Your task to perform on an android device: Open ESPN.com Image 0: 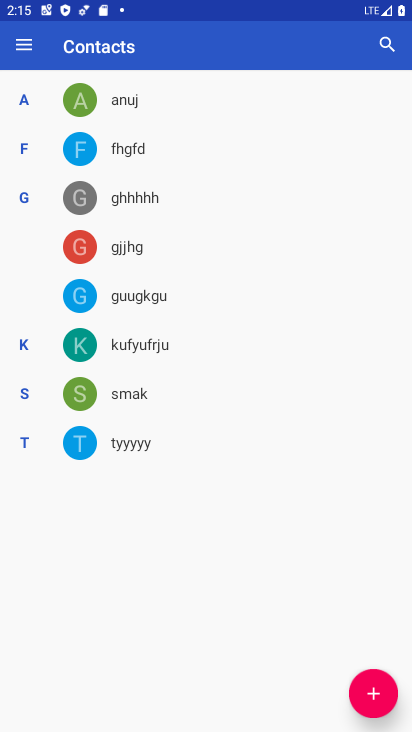
Step 0: press home button
Your task to perform on an android device: Open ESPN.com Image 1: 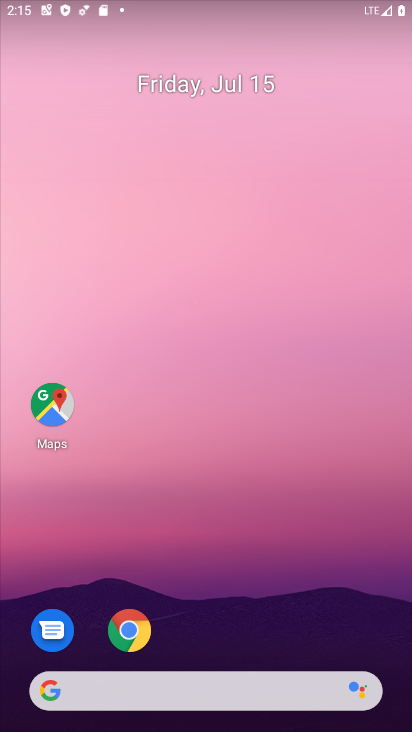
Step 1: click (54, 693)
Your task to perform on an android device: Open ESPN.com Image 2: 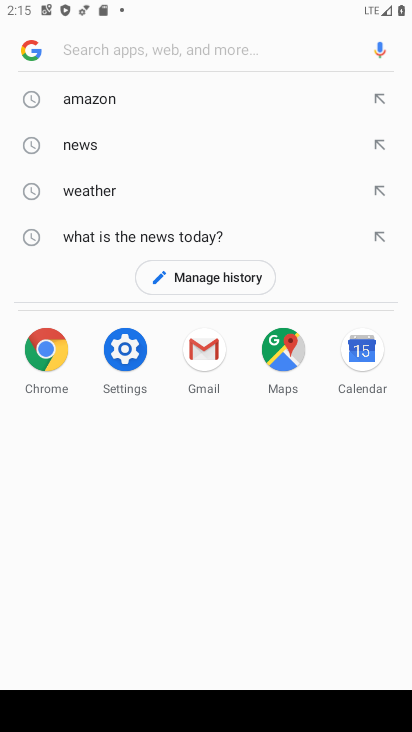
Step 2: click (113, 51)
Your task to perform on an android device: Open ESPN.com Image 3: 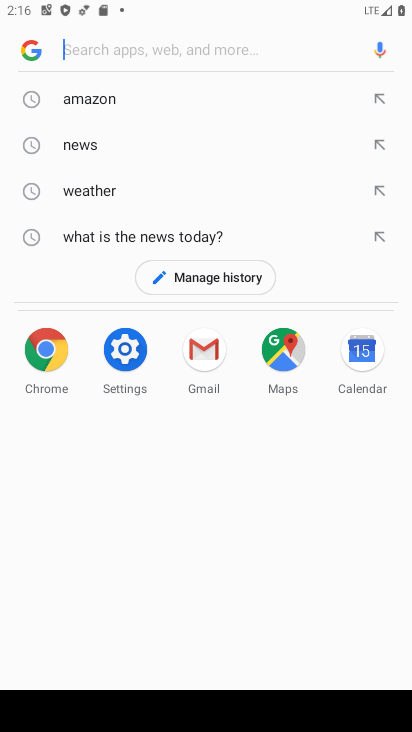
Step 3: type "ESPN.com"
Your task to perform on an android device: Open ESPN.com Image 4: 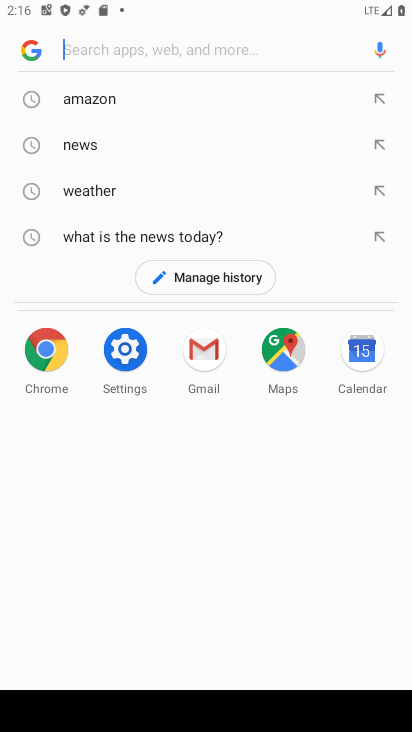
Step 4: click (94, 52)
Your task to perform on an android device: Open ESPN.com Image 5: 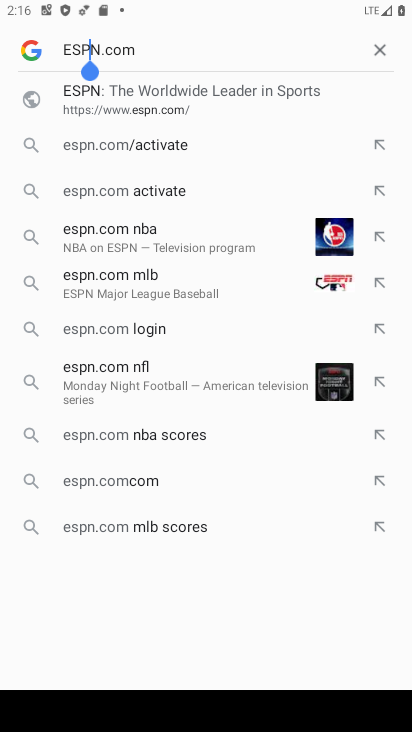
Step 5: press enter
Your task to perform on an android device: Open ESPN.com Image 6: 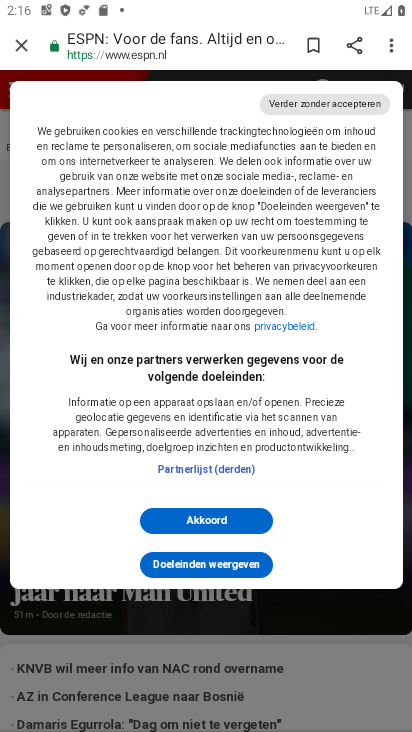
Step 6: click (213, 508)
Your task to perform on an android device: Open ESPN.com Image 7: 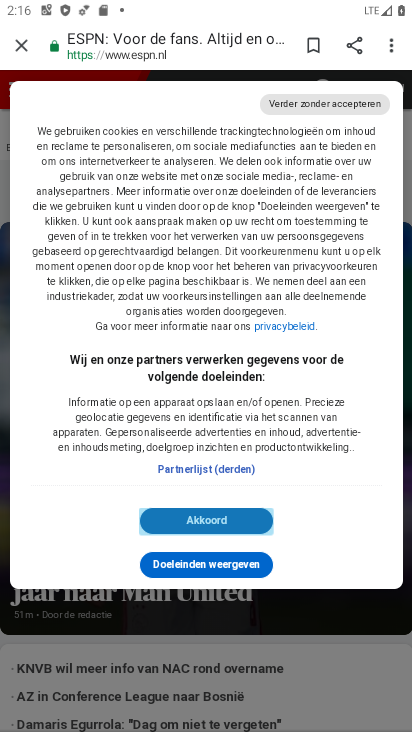
Step 7: click (217, 516)
Your task to perform on an android device: Open ESPN.com Image 8: 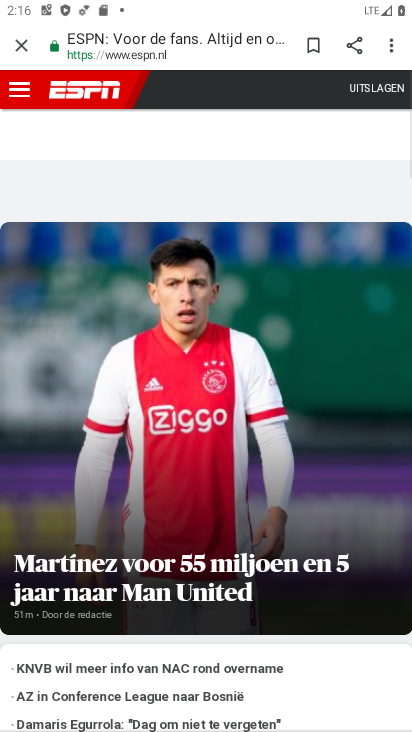
Step 8: task complete